Your task to perform on an android device: turn off notifications in google photos Image 0: 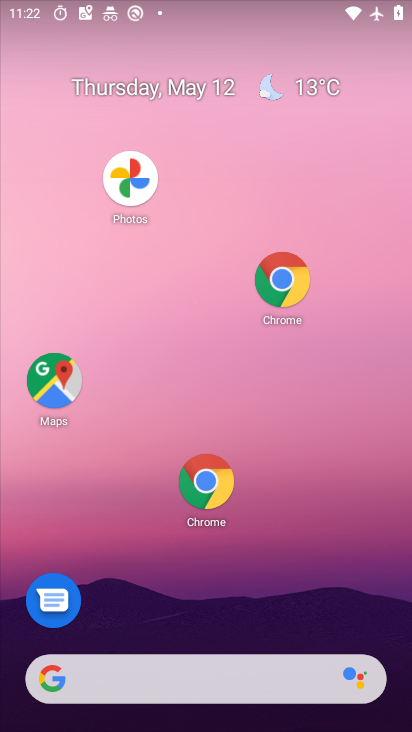
Step 0: drag from (378, 581) to (176, 22)
Your task to perform on an android device: turn off notifications in google photos Image 1: 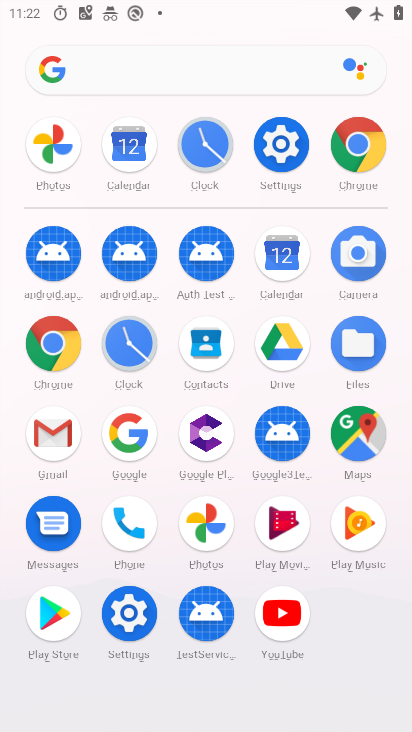
Step 1: click (209, 511)
Your task to perform on an android device: turn off notifications in google photos Image 2: 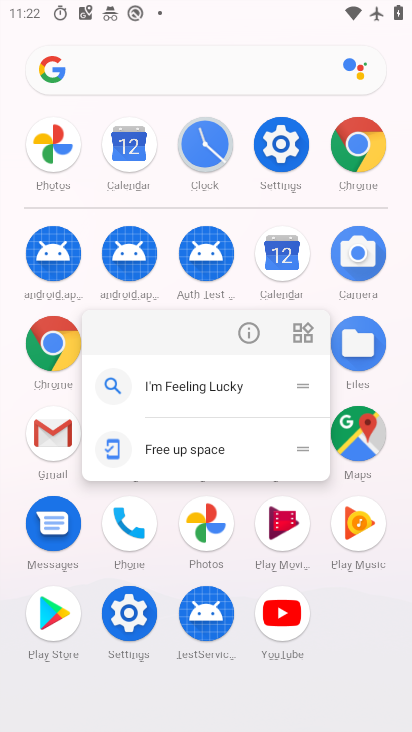
Step 2: click (183, 519)
Your task to perform on an android device: turn off notifications in google photos Image 3: 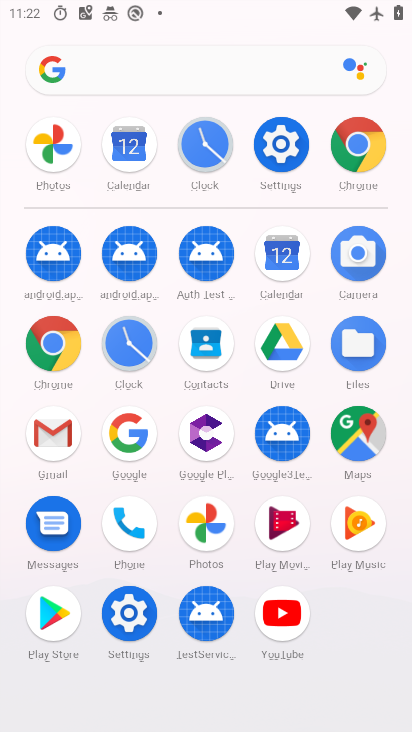
Step 3: click (193, 519)
Your task to perform on an android device: turn off notifications in google photos Image 4: 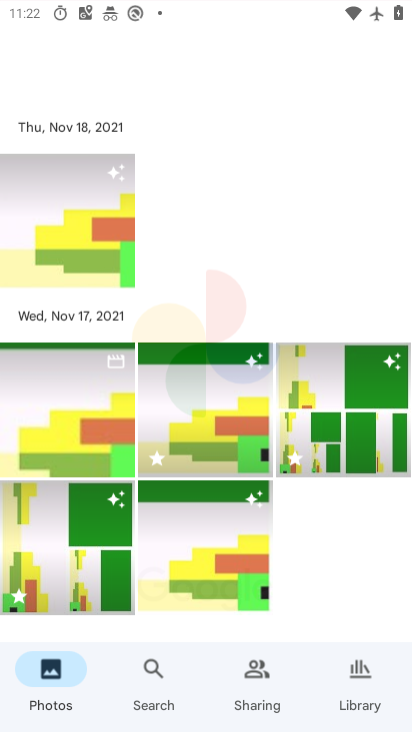
Step 4: click (196, 519)
Your task to perform on an android device: turn off notifications in google photos Image 5: 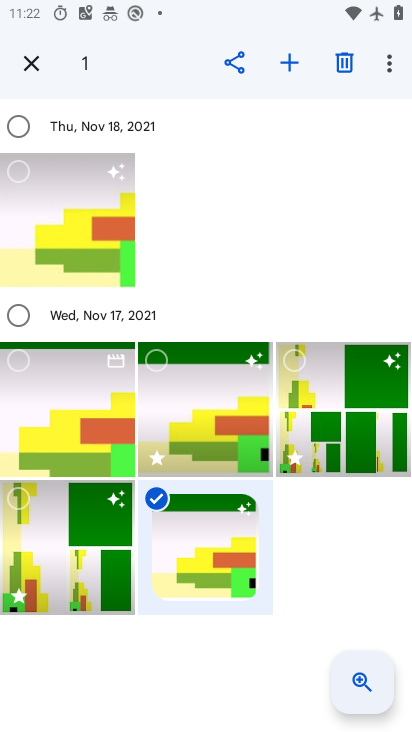
Step 5: click (32, 63)
Your task to perform on an android device: turn off notifications in google photos Image 6: 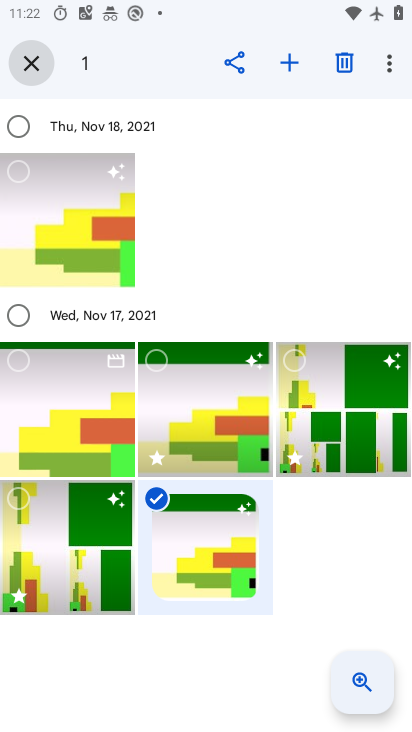
Step 6: click (32, 63)
Your task to perform on an android device: turn off notifications in google photos Image 7: 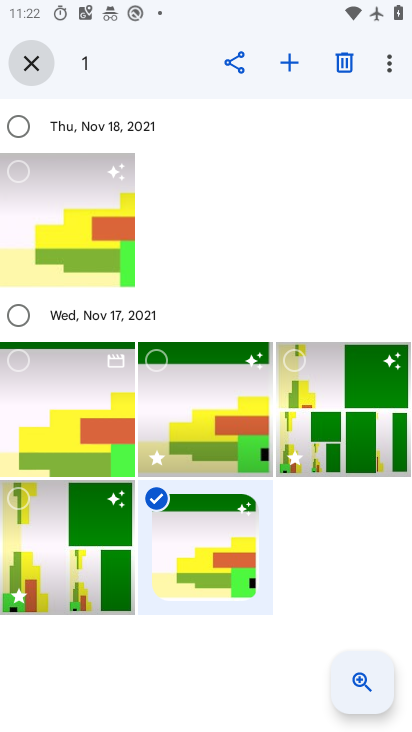
Step 7: click (32, 63)
Your task to perform on an android device: turn off notifications in google photos Image 8: 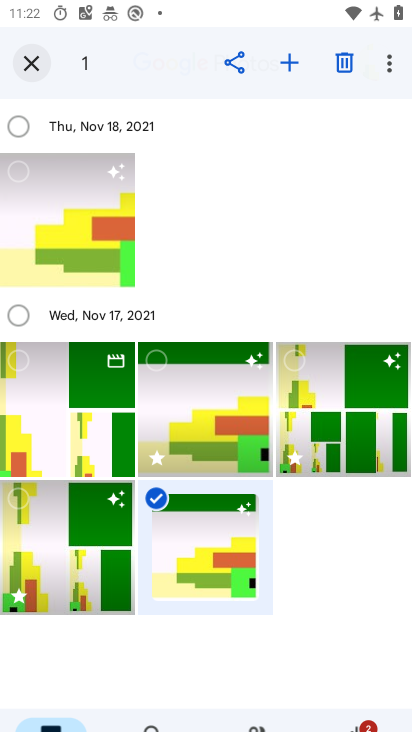
Step 8: click (32, 62)
Your task to perform on an android device: turn off notifications in google photos Image 9: 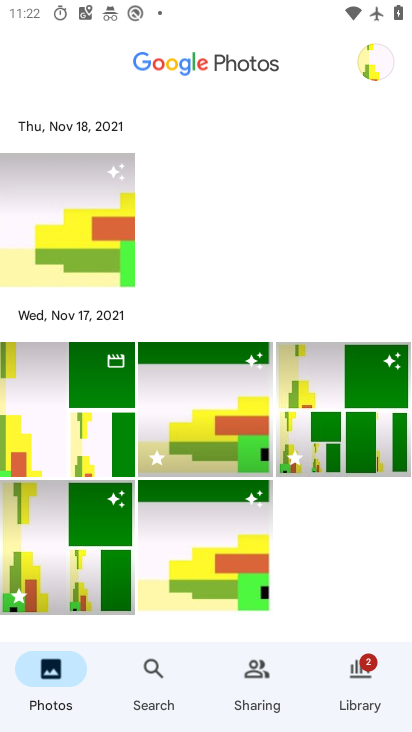
Step 9: click (32, 62)
Your task to perform on an android device: turn off notifications in google photos Image 10: 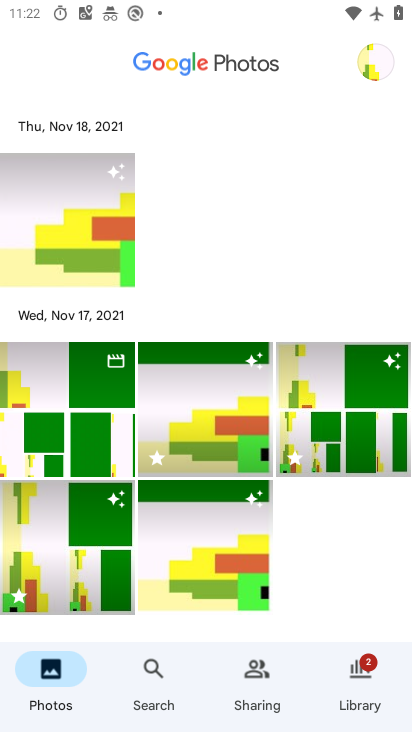
Step 10: press back button
Your task to perform on an android device: turn off notifications in google photos Image 11: 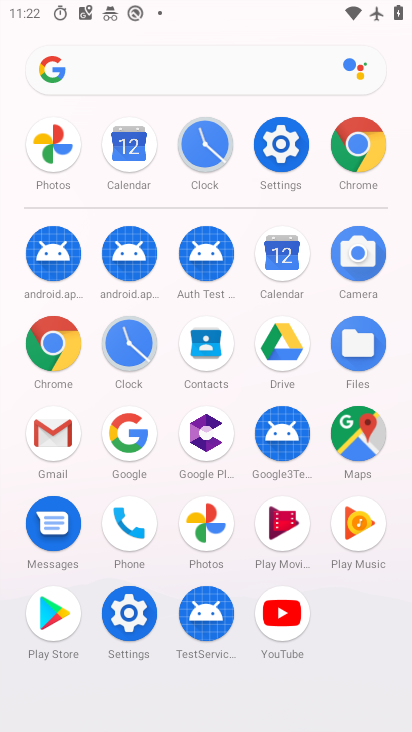
Step 11: click (203, 513)
Your task to perform on an android device: turn off notifications in google photos Image 12: 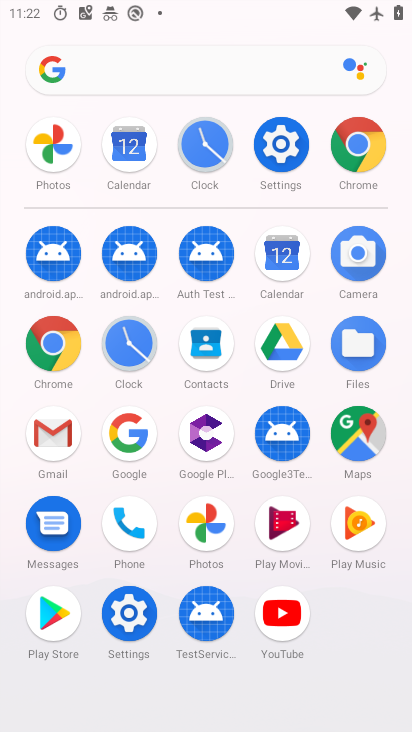
Step 12: click (203, 513)
Your task to perform on an android device: turn off notifications in google photos Image 13: 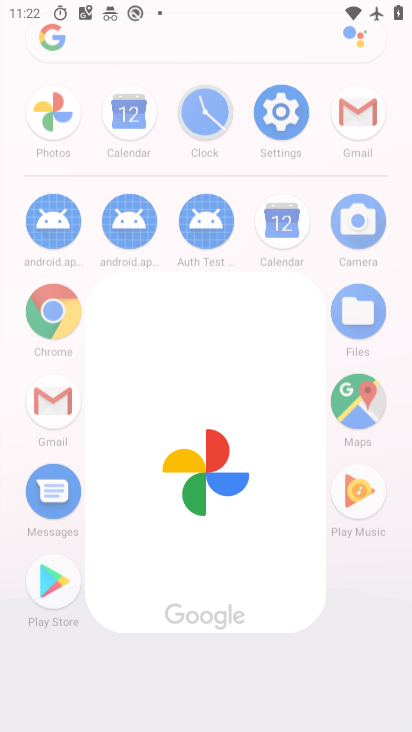
Step 13: click (203, 513)
Your task to perform on an android device: turn off notifications in google photos Image 14: 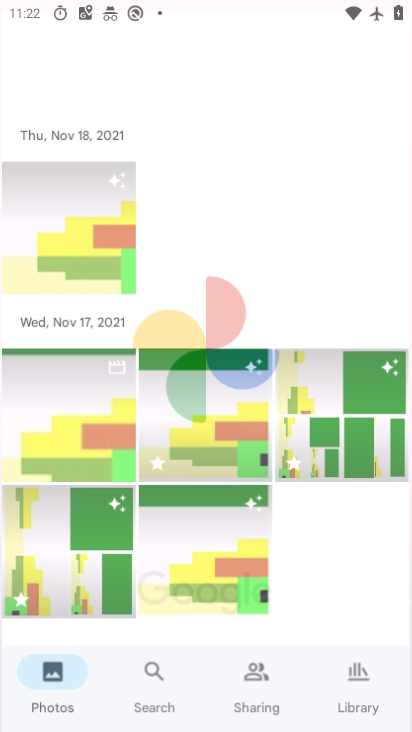
Step 14: click (203, 513)
Your task to perform on an android device: turn off notifications in google photos Image 15: 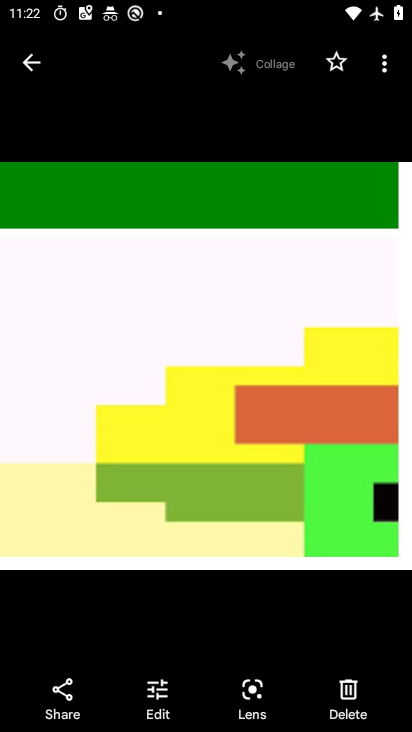
Step 15: click (31, 69)
Your task to perform on an android device: turn off notifications in google photos Image 16: 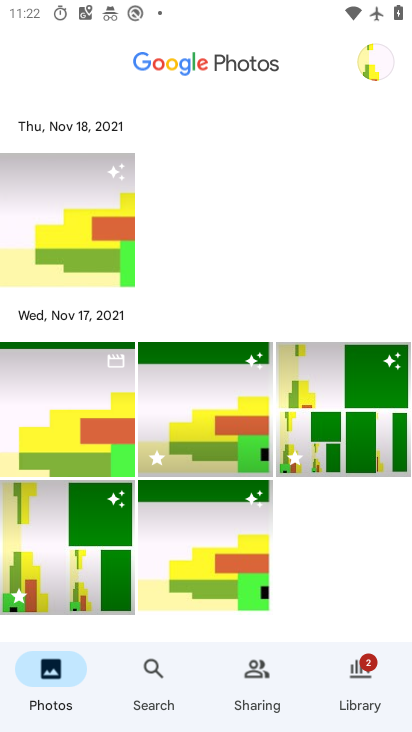
Step 16: task complete